Your task to perform on an android device: Go to Yahoo.com Image 0: 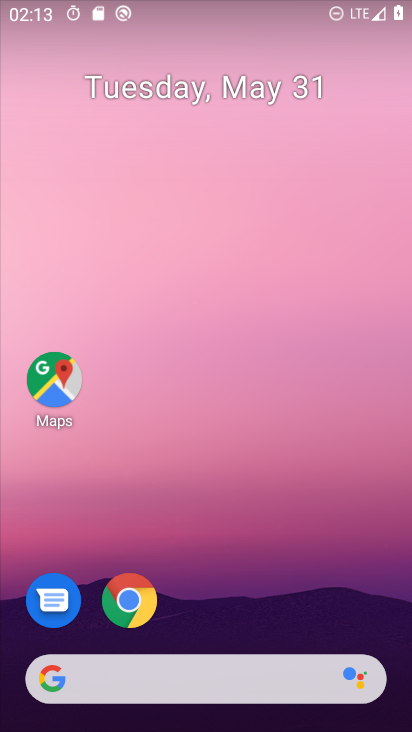
Step 0: click (127, 601)
Your task to perform on an android device: Go to Yahoo.com Image 1: 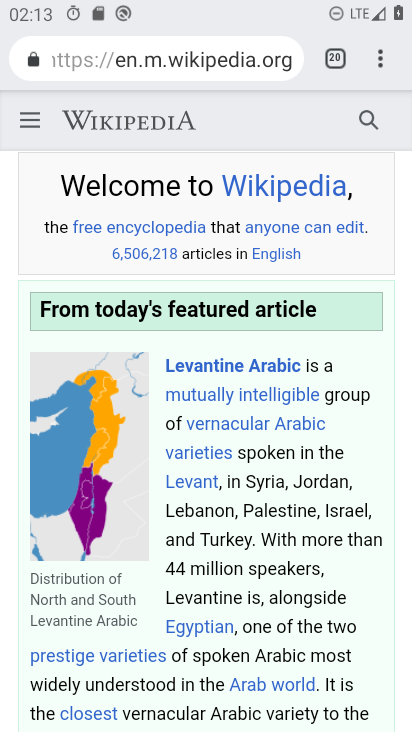
Step 1: click (382, 66)
Your task to perform on an android device: Go to Yahoo.com Image 2: 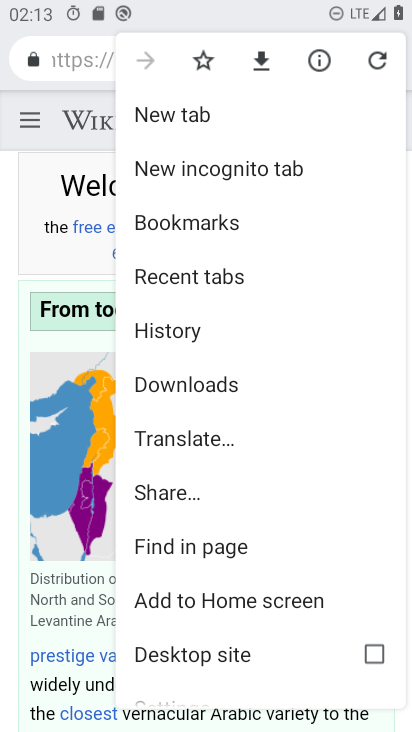
Step 2: click (150, 115)
Your task to perform on an android device: Go to Yahoo.com Image 3: 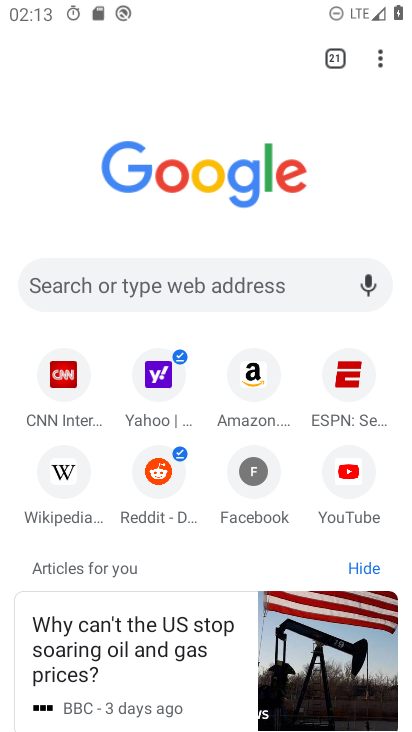
Step 3: click (158, 377)
Your task to perform on an android device: Go to Yahoo.com Image 4: 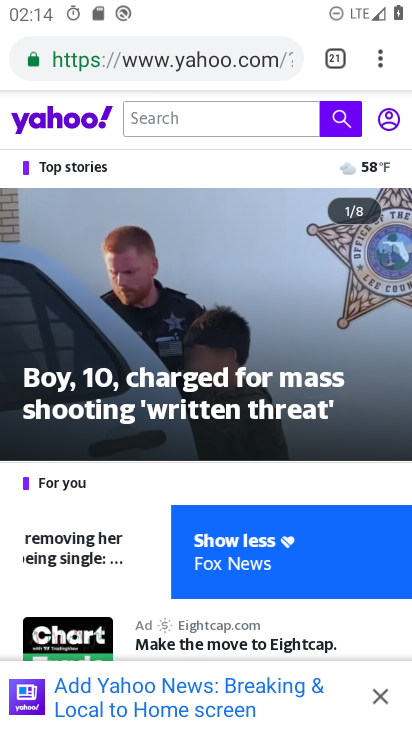
Step 4: task complete